Your task to perform on an android device: change notification settings in the gmail app Image 0: 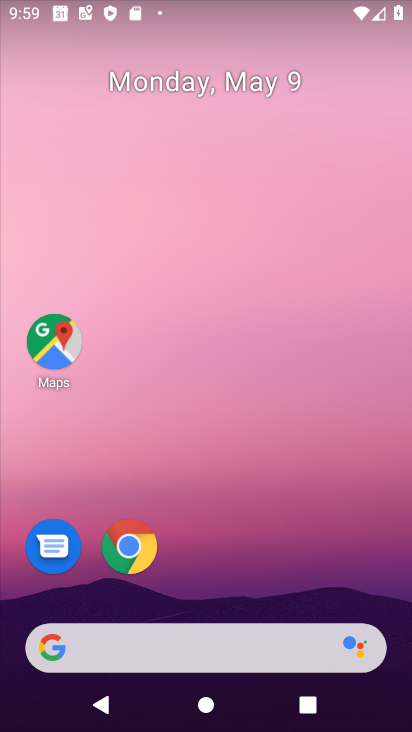
Step 0: drag from (261, 685) to (220, 18)
Your task to perform on an android device: change notification settings in the gmail app Image 1: 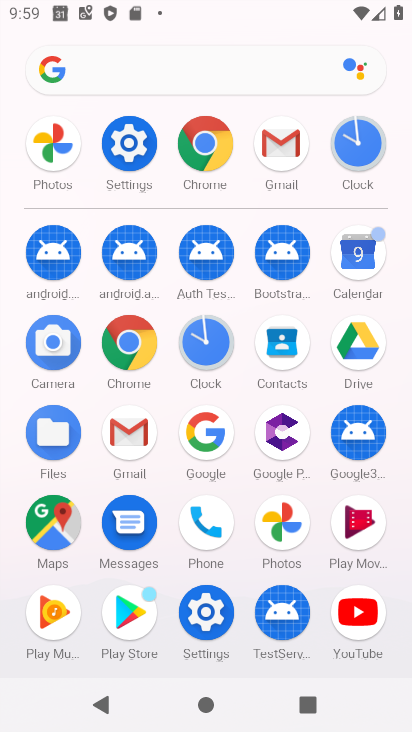
Step 1: click (282, 157)
Your task to perform on an android device: change notification settings in the gmail app Image 2: 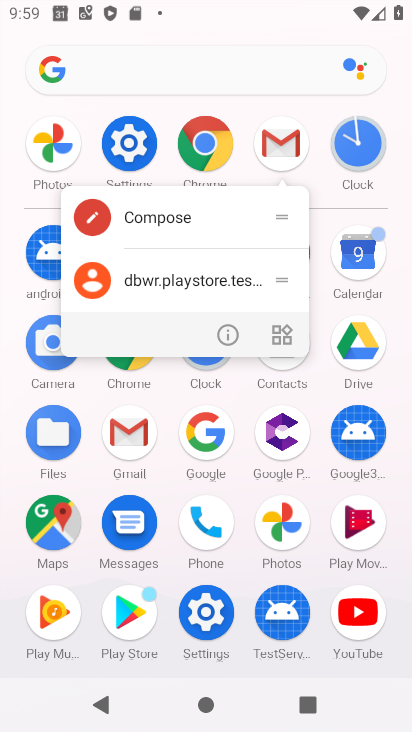
Step 2: click (225, 336)
Your task to perform on an android device: change notification settings in the gmail app Image 3: 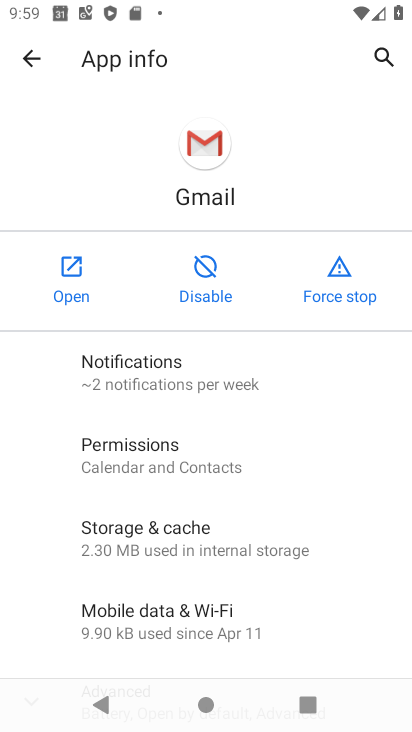
Step 3: click (169, 361)
Your task to perform on an android device: change notification settings in the gmail app Image 4: 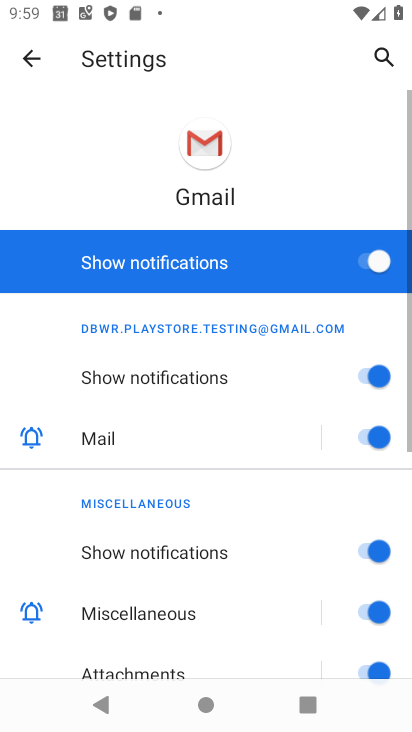
Step 4: click (379, 268)
Your task to perform on an android device: change notification settings in the gmail app Image 5: 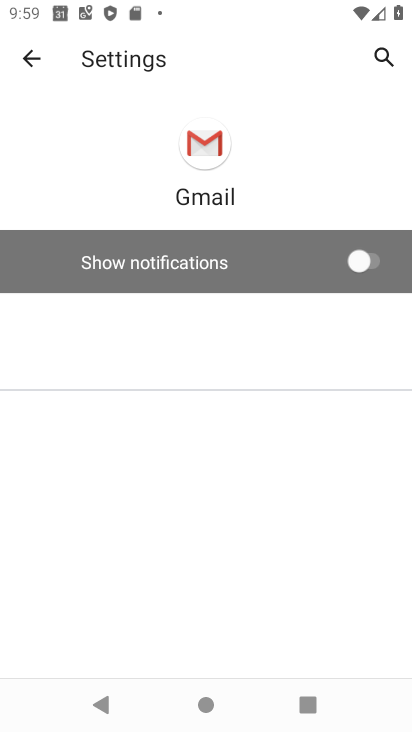
Step 5: task complete